Your task to perform on an android device: Open Google Chrome and click the shortcut for Amazon.com Image 0: 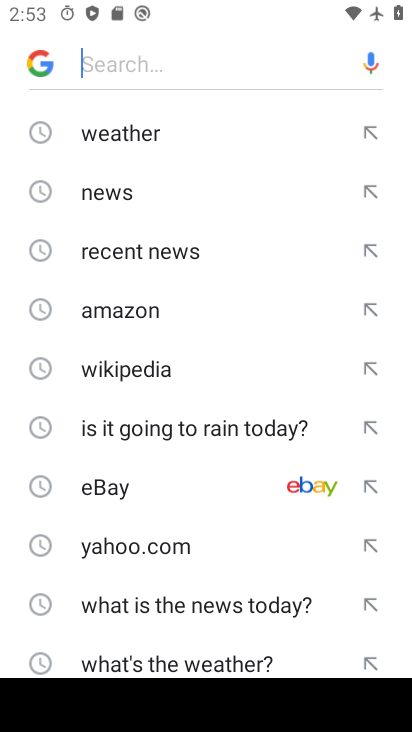
Step 0: press back button
Your task to perform on an android device: Open Google Chrome and click the shortcut for Amazon.com Image 1: 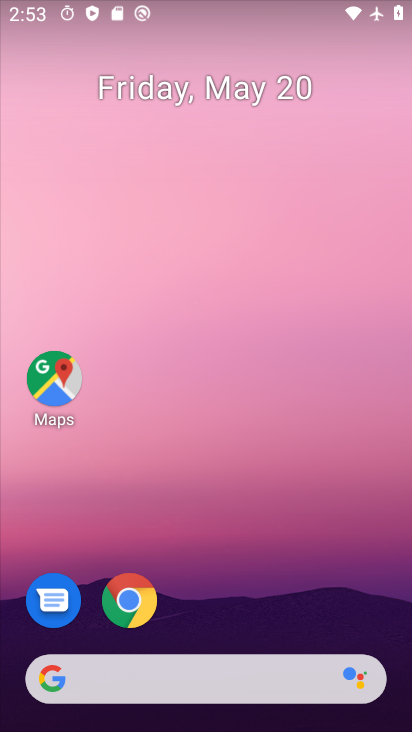
Step 1: drag from (280, 410) to (262, 14)
Your task to perform on an android device: Open Google Chrome and click the shortcut for Amazon.com Image 2: 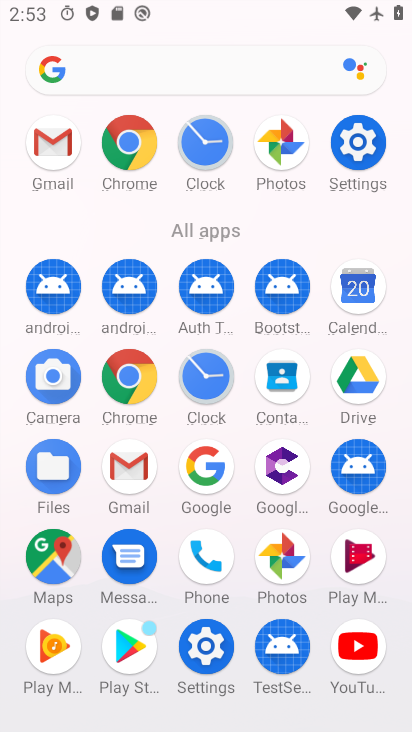
Step 2: click (128, 134)
Your task to perform on an android device: Open Google Chrome and click the shortcut for Amazon.com Image 3: 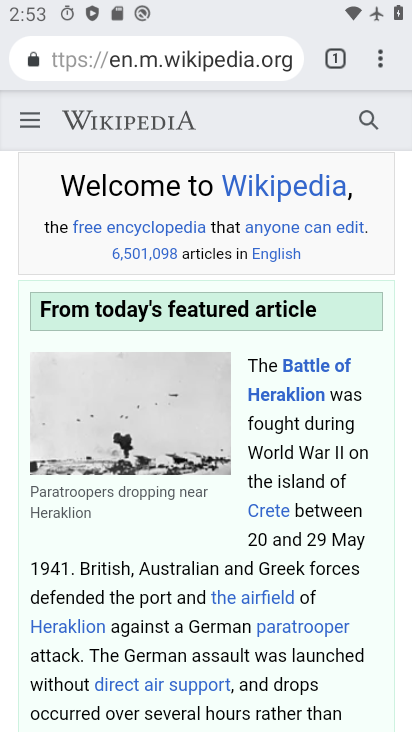
Step 3: click (139, 57)
Your task to perform on an android device: Open Google Chrome and click the shortcut for Amazon.com Image 4: 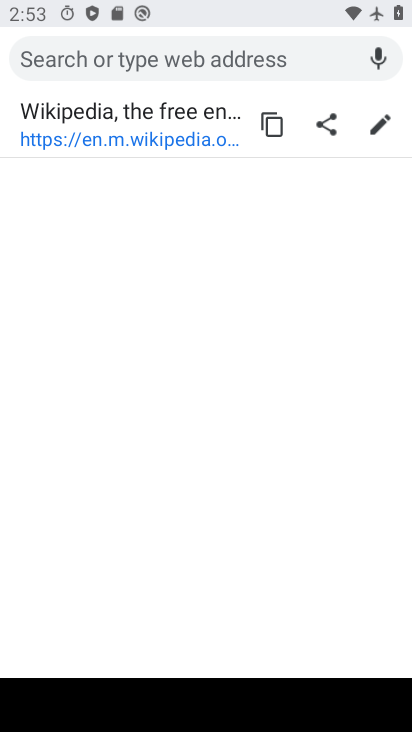
Step 4: type "Amazon.com"
Your task to perform on an android device: Open Google Chrome and click the shortcut for Amazon.com Image 5: 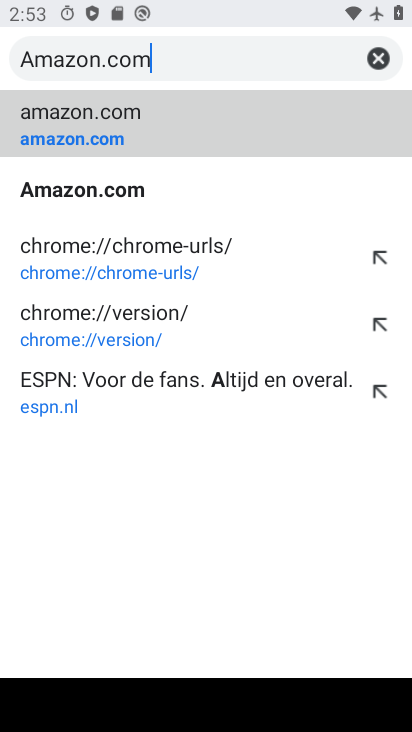
Step 5: type ""
Your task to perform on an android device: Open Google Chrome and click the shortcut for Amazon.com Image 6: 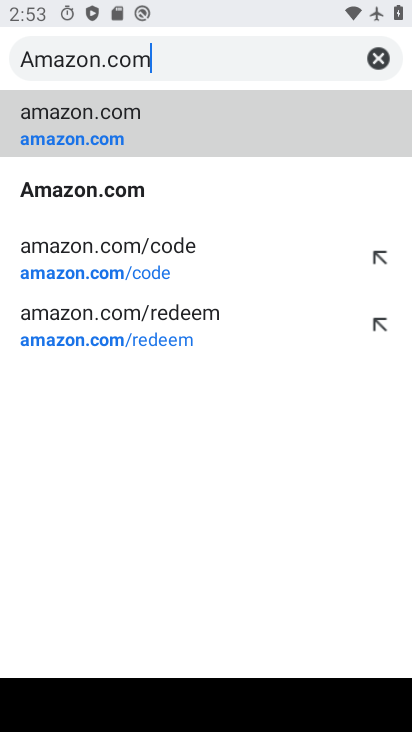
Step 6: click (190, 115)
Your task to perform on an android device: Open Google Chrome and click the shortcut for Amazon.com Image 7: 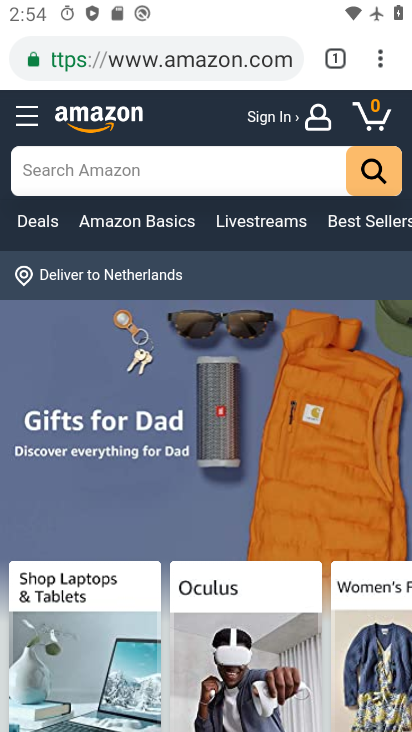
Step 7: drag from (379, 58) to (216, 586)
Your task to perform on an android device: Open Google Chrome and click the shortcut for Amazon.com Image 8: 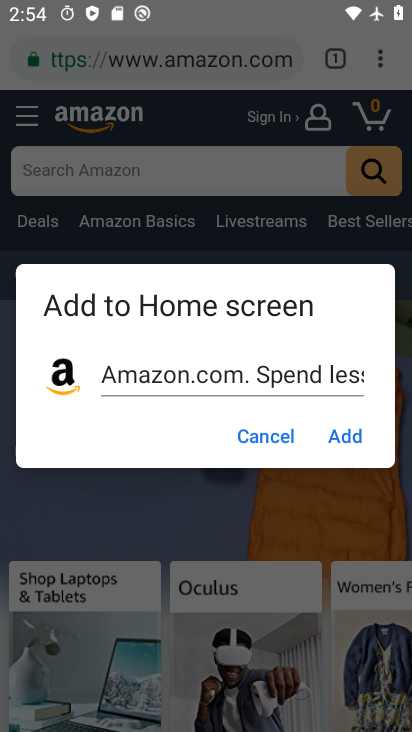
Step 8: click (343, 432)
Your task to perform on an android device: Open Google Chrome and click the shortcut for Amazon.com Image 9: 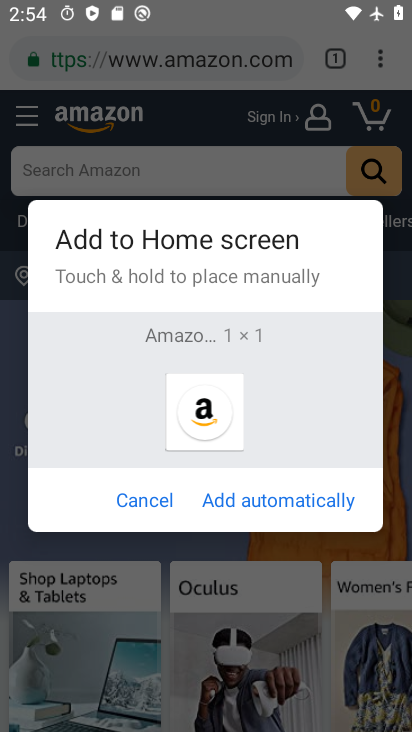
Step 9: click (279, 496)
Your task to perform on an android device: Open Google Chrome and click the shortcut for Amazon.com Image 10: 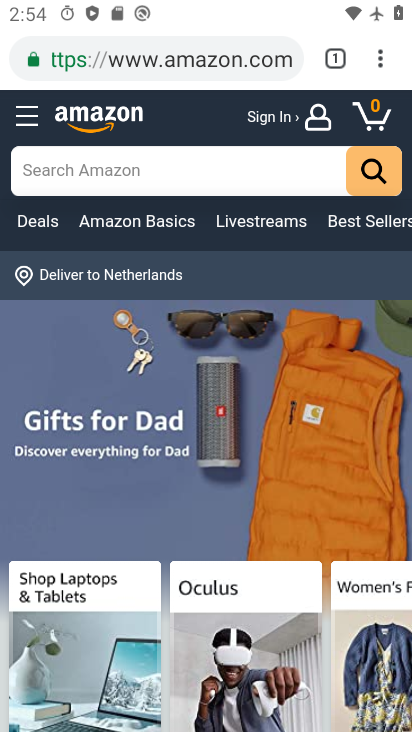
Step 10: task complete